Your task to perform on an android device: Show me popular videos on Youtube Image 0: 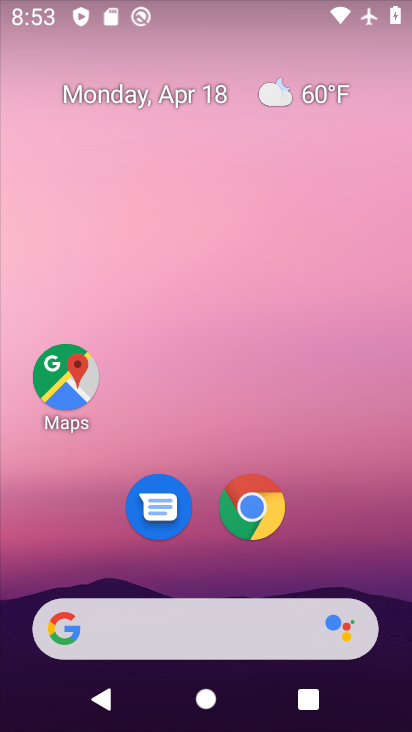
Step 0: drag from (330, 536) to (325, 160)
Your task to perform on an android device: Show me popular videos on Youtube Image 1: 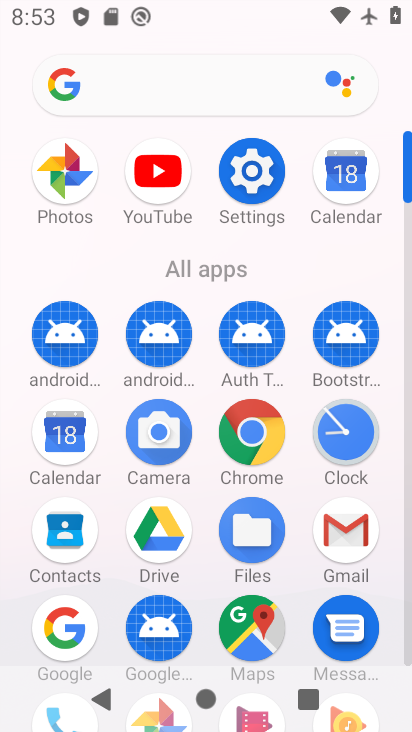
Step 1: drag from (302, 661) to (289, 274)
Your task to perform on an android device: Show me popular videos on Youtube Image 2: 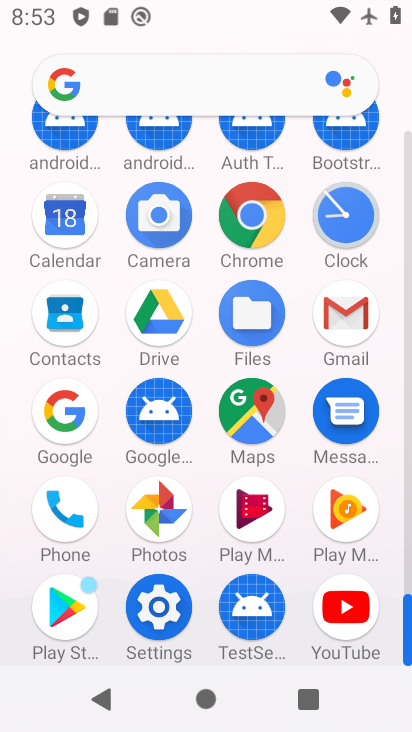
Step 2: click (353, 603)
Your task to perform on an android device: Show me popular videos on Youtube Image 3: 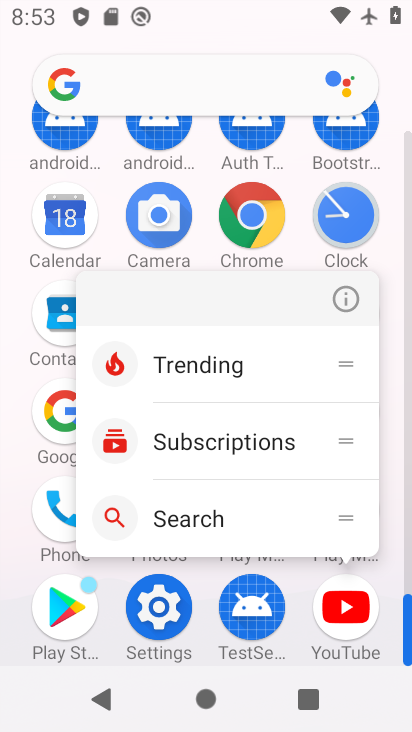
Step 3: click (351, 623)
Your task to perform on an android device: Show me popular videos on Youtube Image 4: 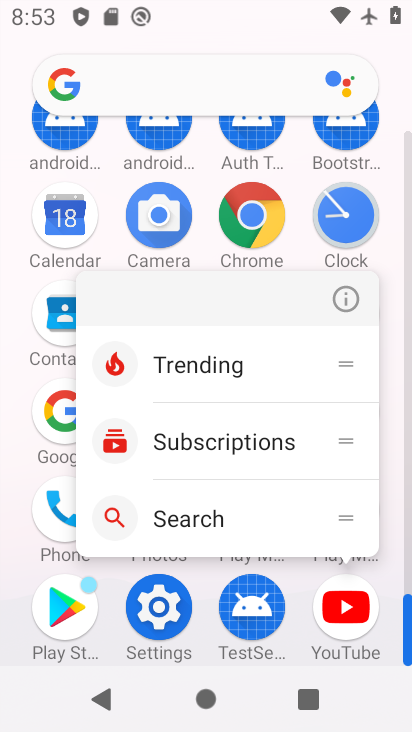
Step 4: click (351, 629)
Your task to perform on an android device: Show me popular videos on Youtube Image 5: 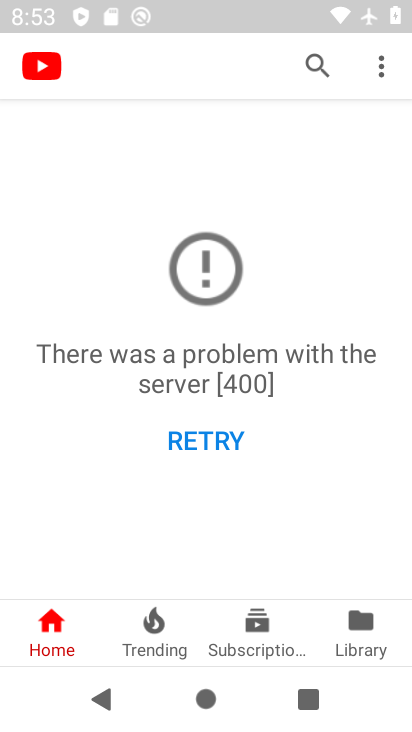
Step 5: click (157, 641)
Your task to perform on an android device: Show me popular videos on Youtube Image 6: 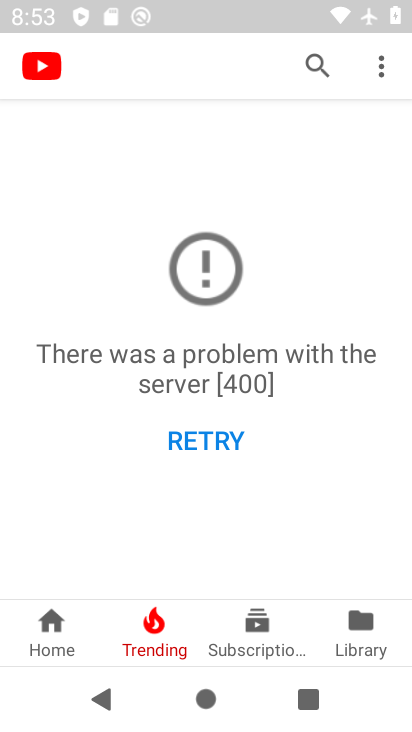
Step 6: click (194, 446)
Your task to perform on an android device: Show me popular videos on Youtube Image 7: 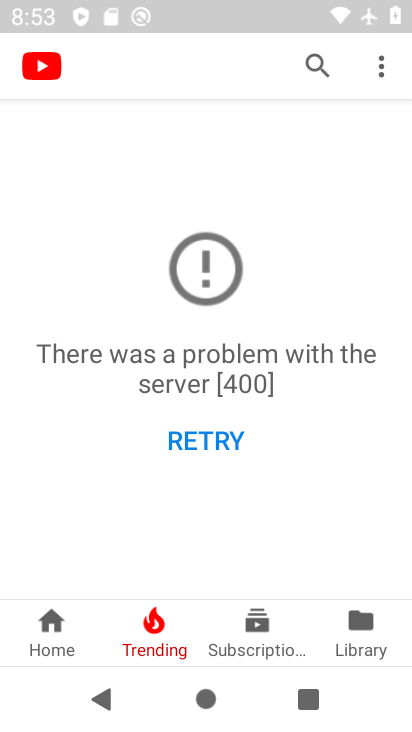
Step 7: task complete